Your task to perform on an android device: Set the phone to "Do not disturb". Image 0: 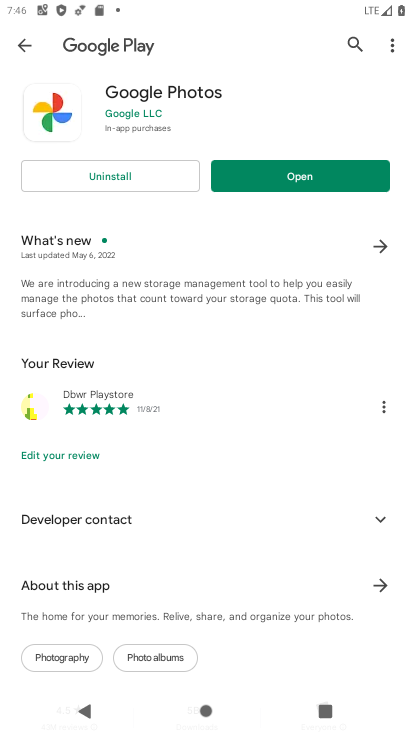
Step 0: press home button
Your task to perform on an android device: Set the phone to "Do not disturb". Image 1: 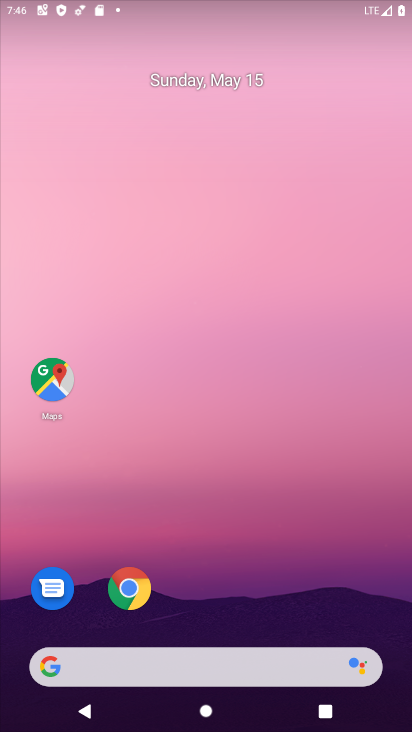
Step 1: drag from (366, 602) to (304, 174)
Your task to perform on an android device: Set the phone to "Do not disturb". Image 2: 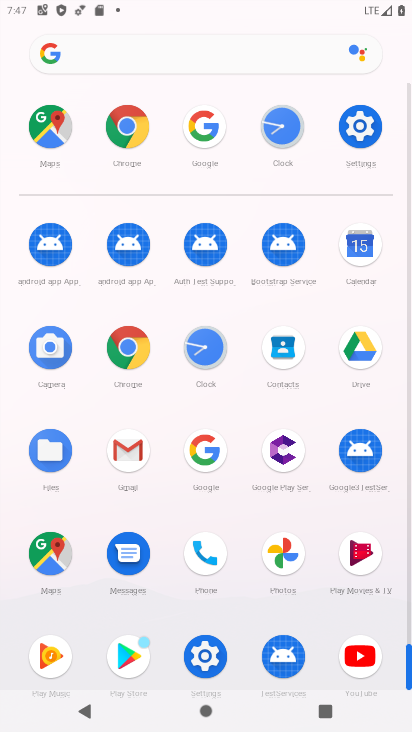
Step 2: drag from (186, 3) to (251, 525)
Your task to perform on an android device: Set the phone to "Do not disturb". Image 3: 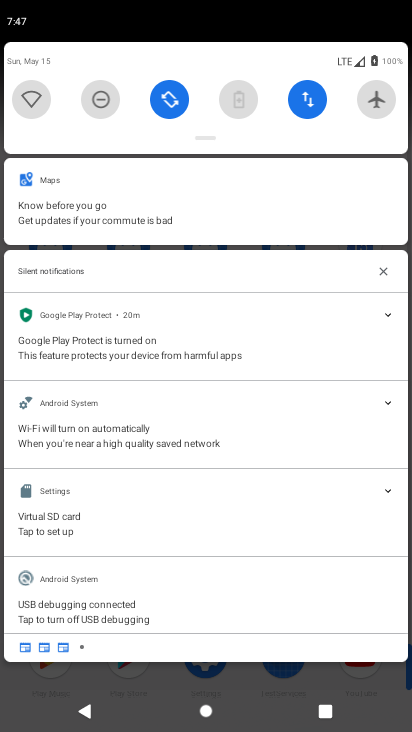
Step 3: click (86, 95)
Your task to perform on an android device: Set the phone to "Do not disturb". Image 4: 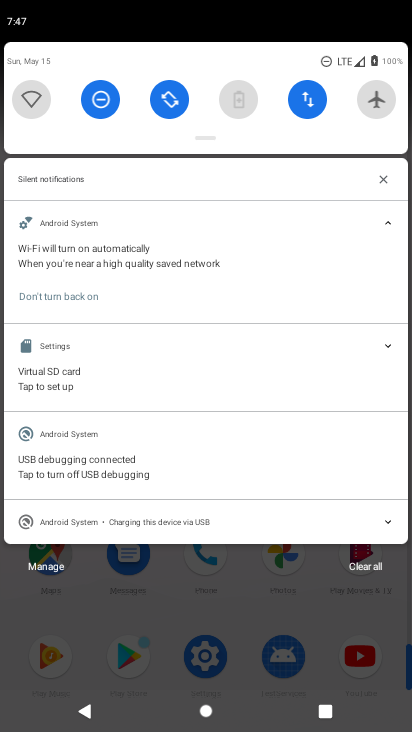
Step 4: task complete